Your task to perform on an android device: What's on the menu at Domino's? Image 0: 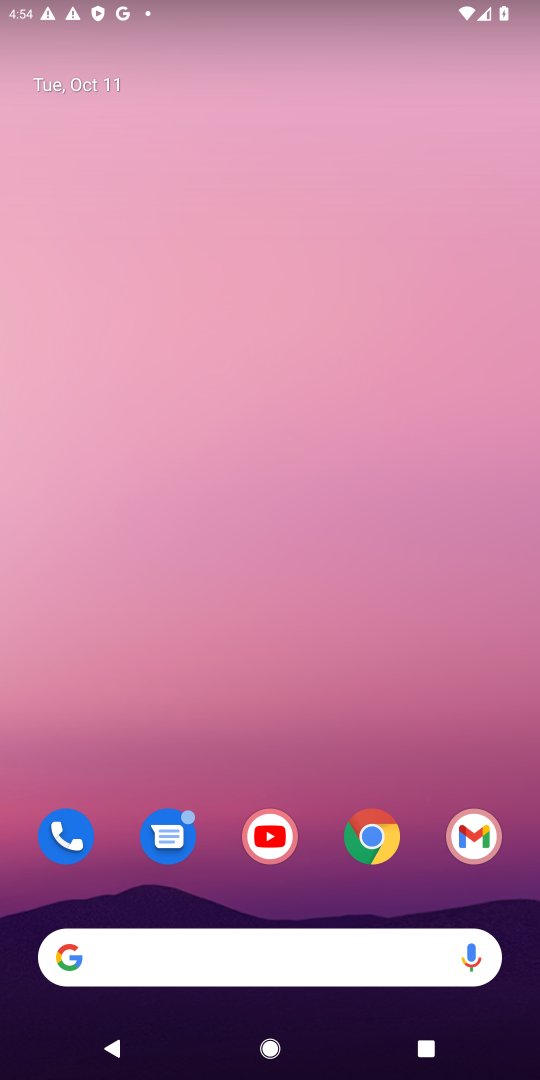
Step 0: click (370, 828)
Your task to perform on an android device: What's on the menu at Domino's? Image 1: 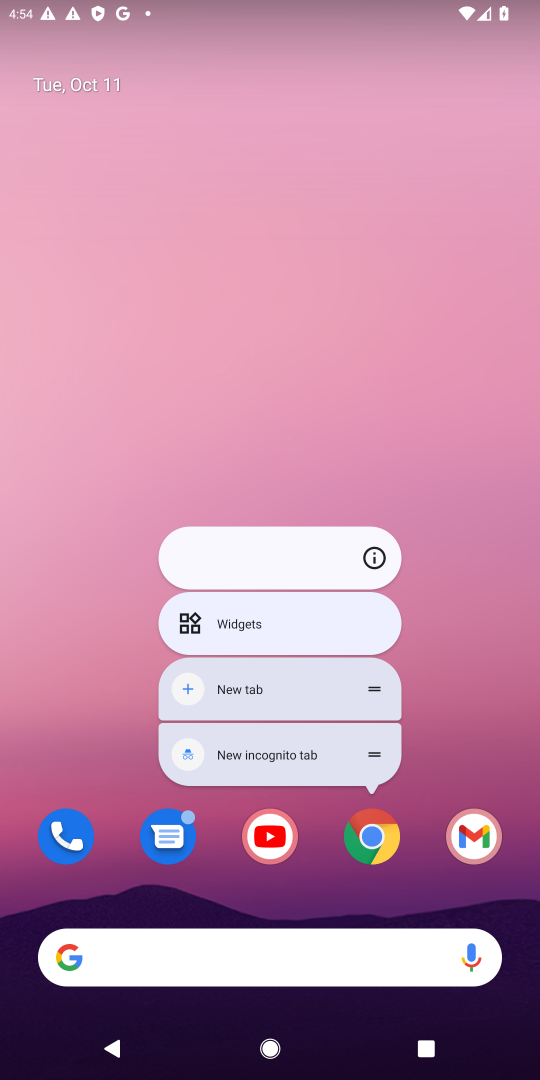
Step 1: click (371, 838)
Your task to perform on an android device: What's on the menu at Domino's? Image 2: 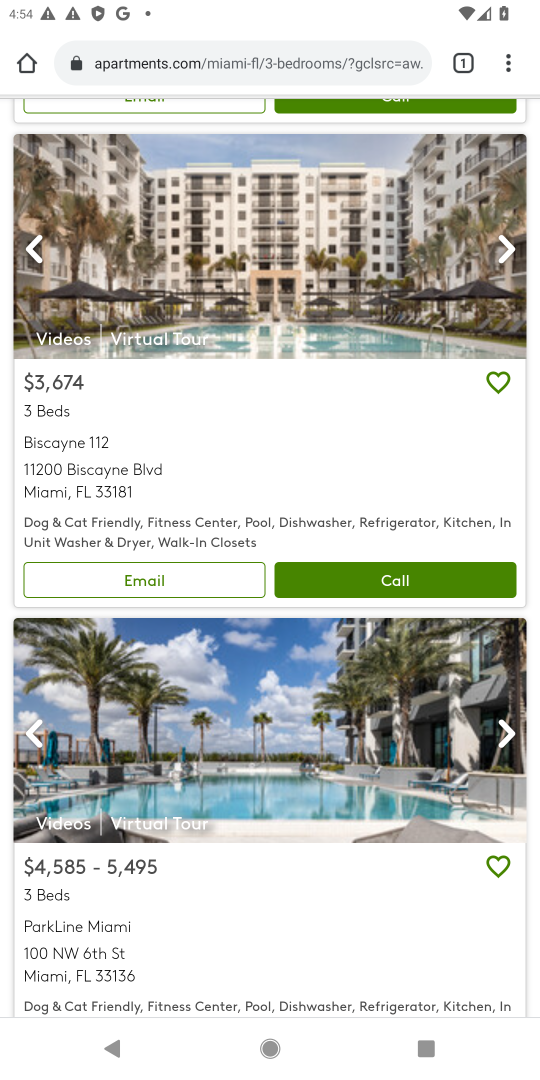
Step 2: click (292, 60)
Your task to perform on an android device: What's on the menu at Domino's? Image 3: 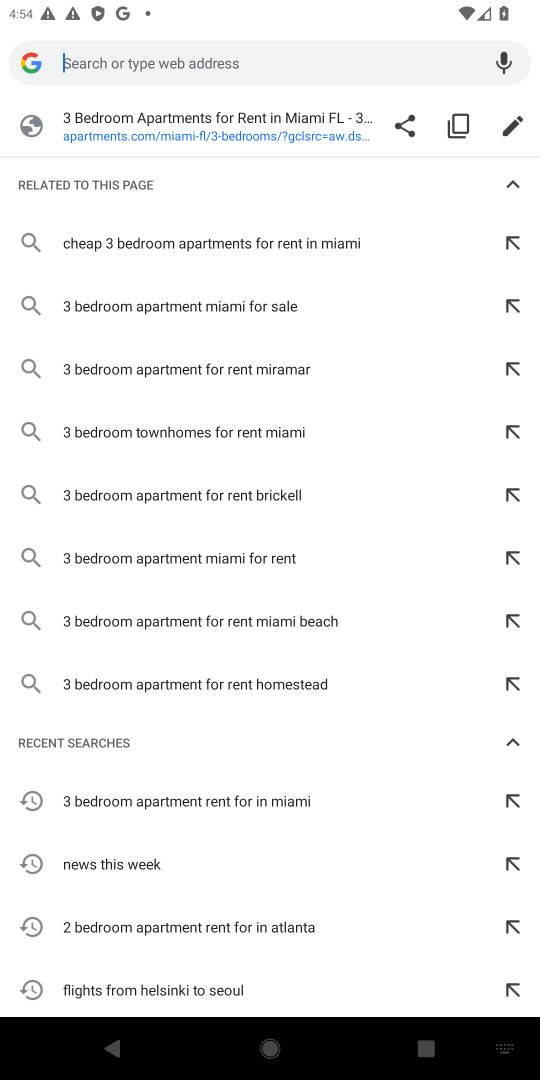
Step 3: type "menu at Domino's"
Your task to perform on an android device: What's on the menu at Domino's? Image 4: 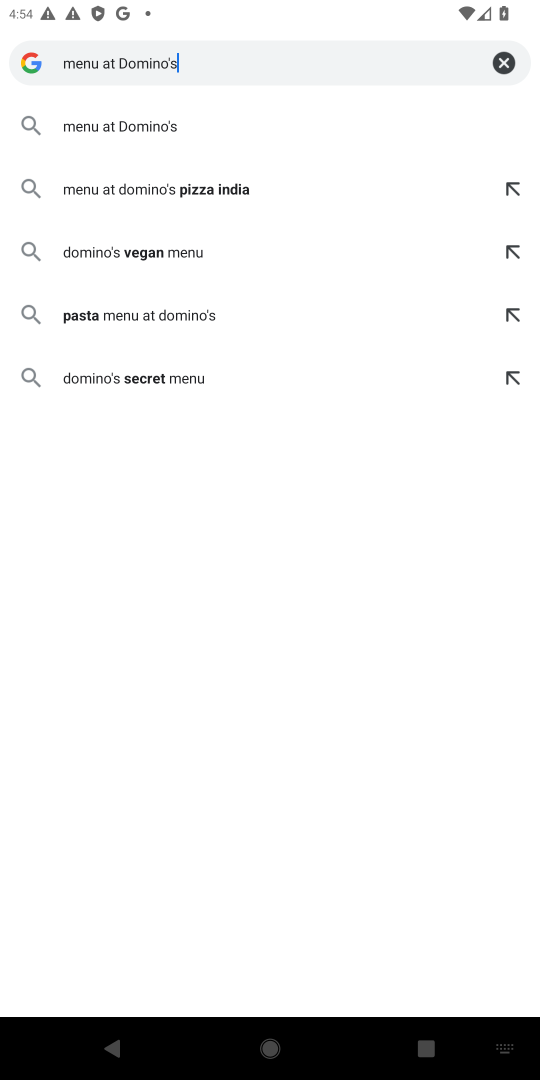
Step 4: click (141, 123)
Your task to perform on an android device: What's on the menu at Domino's? Image 5: 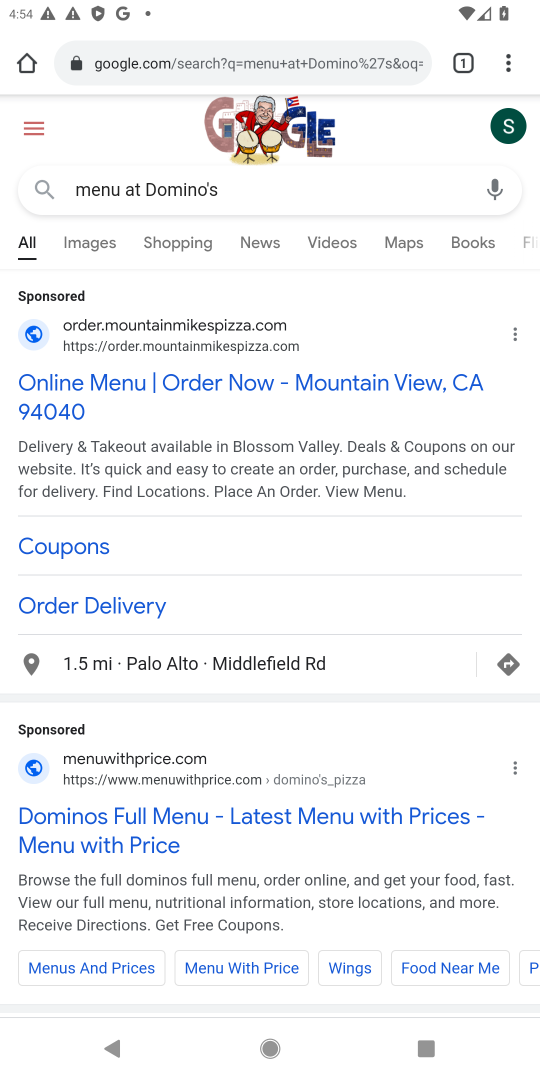
Step 5: click (164, 822)
Your task to perform on an android device: What's on the menu at Domino's? Image 6: 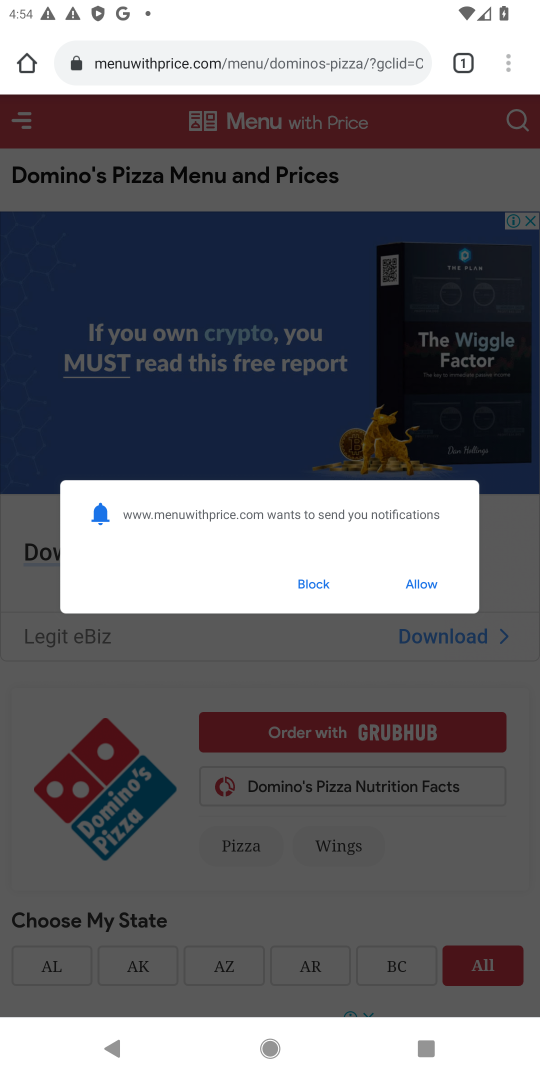
Step 6: click (314, 585)
Your task to perform on an android device: What's on the menu at Domino's? Image 7: 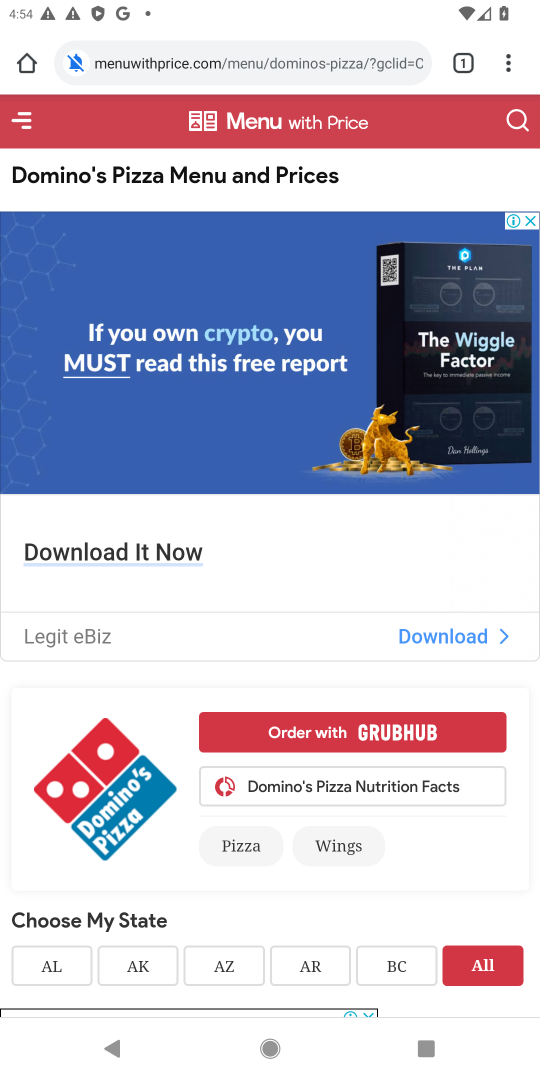
Step 7: task complete